Your task to perform on an android device: Go to Yahoo.com Image 0: 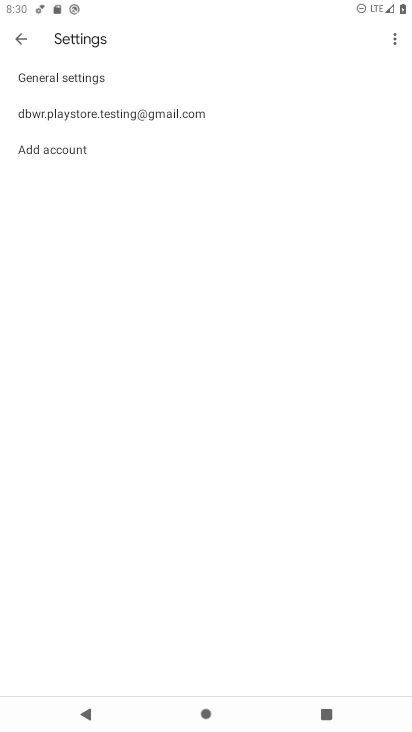
Step 0: press home button
Your task to perform on an android device: Go to Yahoo.com Image 1: 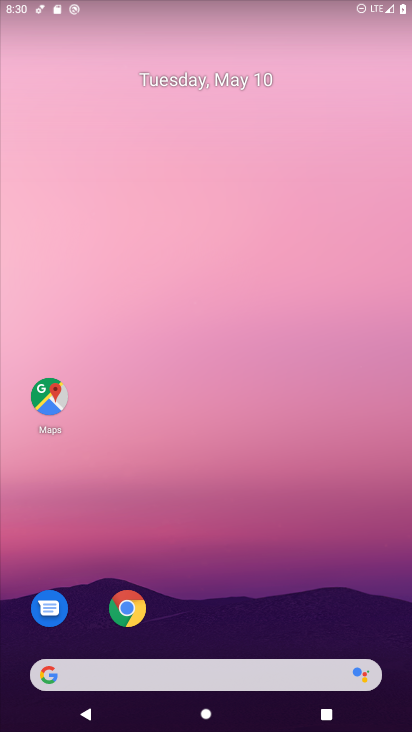
Step 1: drag from (328, 574) to (233, 68)
Your task to perform on an android device: Go to Yahoo.com Image 2: 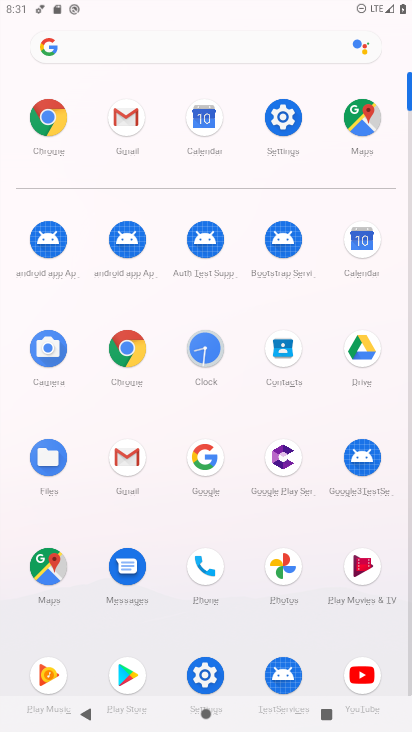
Step 2: click (46, 140)
Your task to perform on an android device: Go to Yahoo.com Image 3: 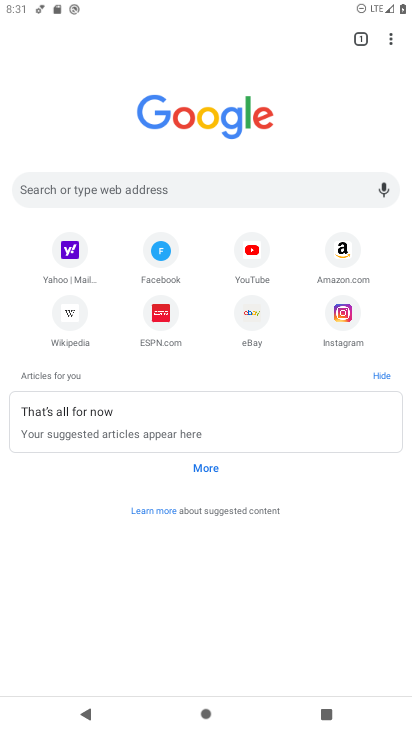
Step 3: click (82, 251)
Your task to perform on an android device: Go to Yahoo.com Image 4: 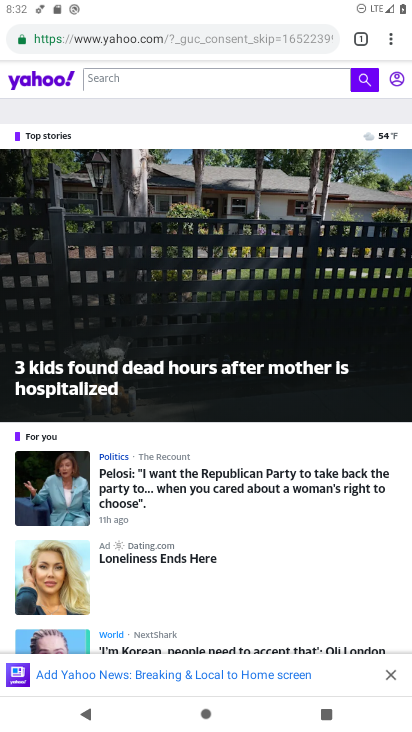
Step 4: task complete